Your task to perform on an android device: change keyboard looks Image 0: 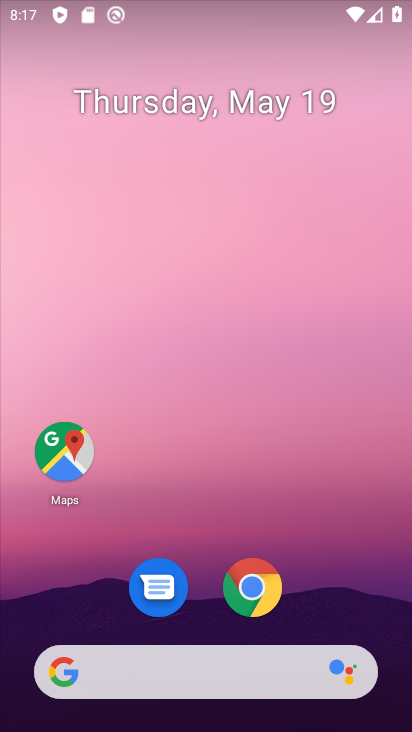
Step 0: drag from (298, 419) to (240, 0)
Your task to perform on an android device: change keyboard looks Image 1: 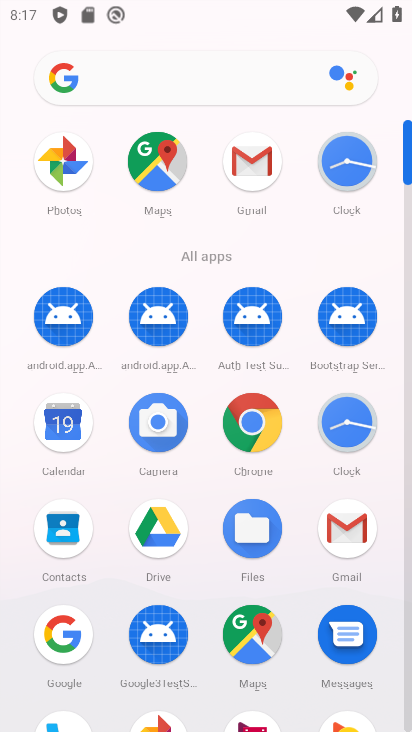
Step 1: drag from (10, 582) to (7, 251)
Your task to perform on an android device: change keyboard looks Image 2: 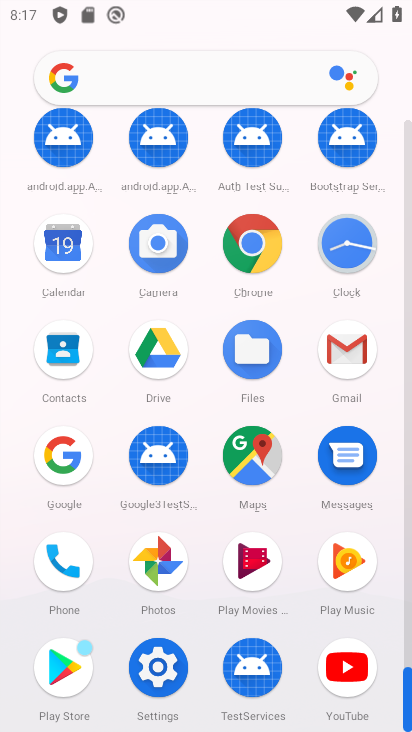
Step 2: click (159, 667)
Your task to perform on an android device: change keyboard looks Image 3: 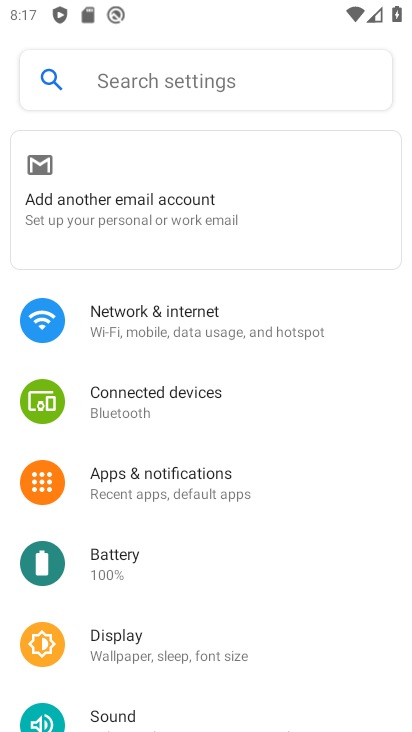
Step 3: drag from (245, 634) to (248, 231)
Your task to perform on an android device: change keyboard looks Image 4: 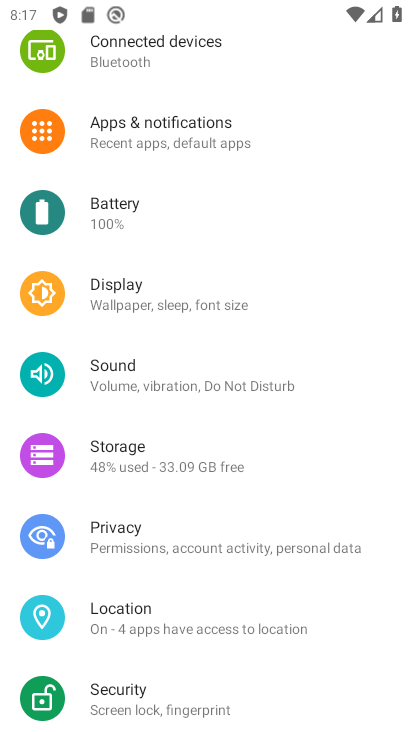
Step 4: drag from (229, 173) to (228, 509)
Your task to perform on an android device: change keyboard looks Image 5: 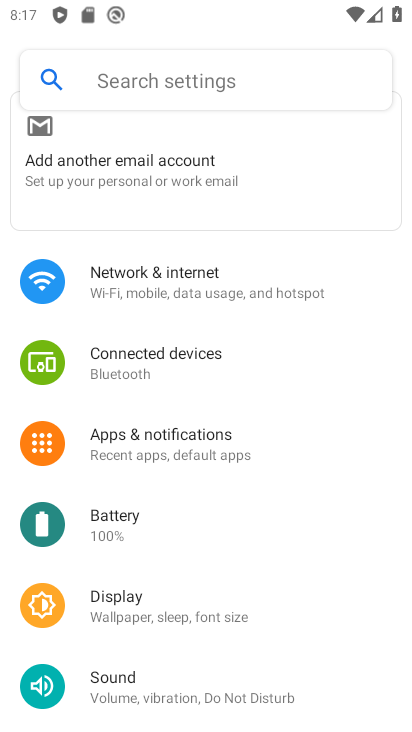
Step 5: drag from (347, 469) to (343, 123)
Your task to perform on an android device: change keyboard looks Image 6: 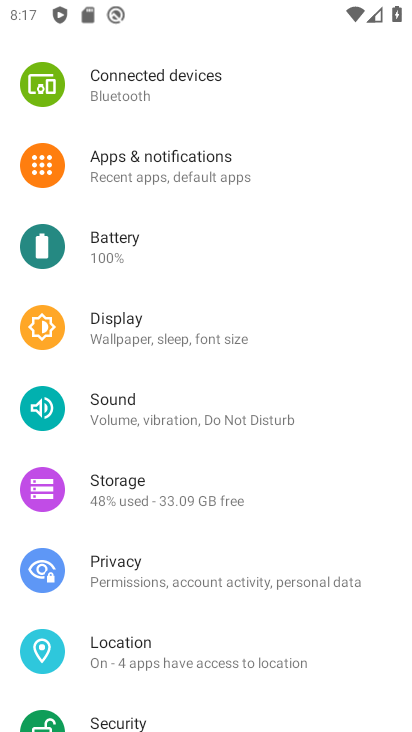
Step 6: drag from (287, 599) to (310, 53)
Your task to perform on an android device: change keyboard looks Image 7: 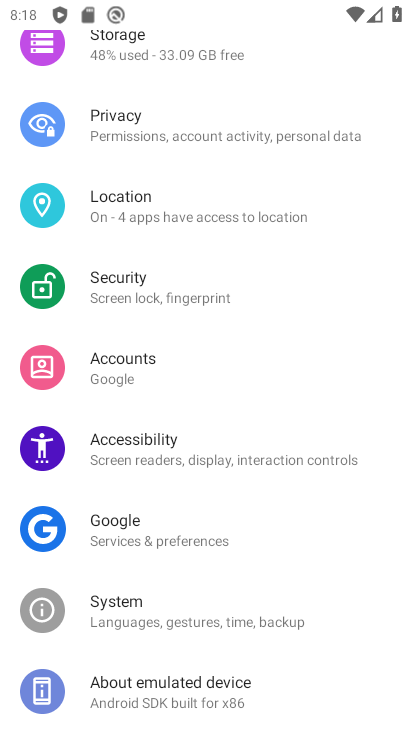
Step 7: click (186, 608)
Your task to perform on an android device: change keyboard looks Image 8: 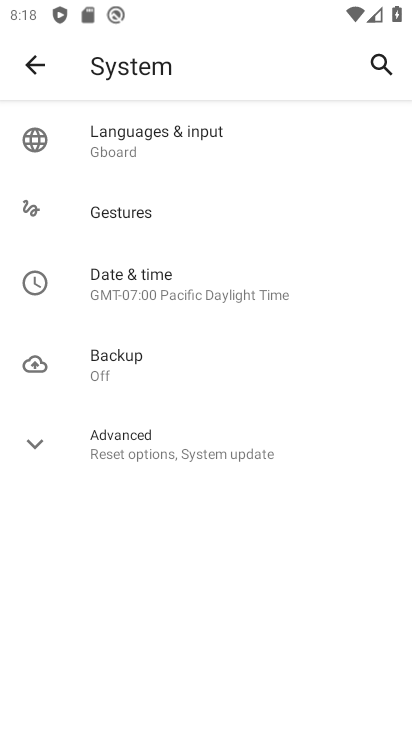
Step 8: click (194, 110)
Your task to perform on an android device: change keyboard looks Image 9: 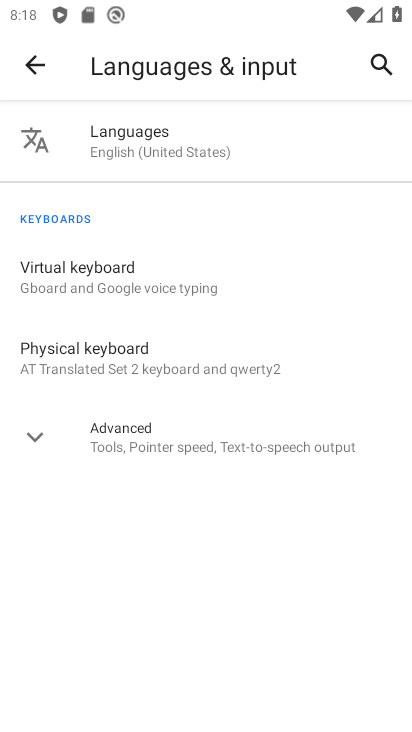
Step 9: click (159, 286)
Your task to perform on an android device: change keyboard looks Image 10: 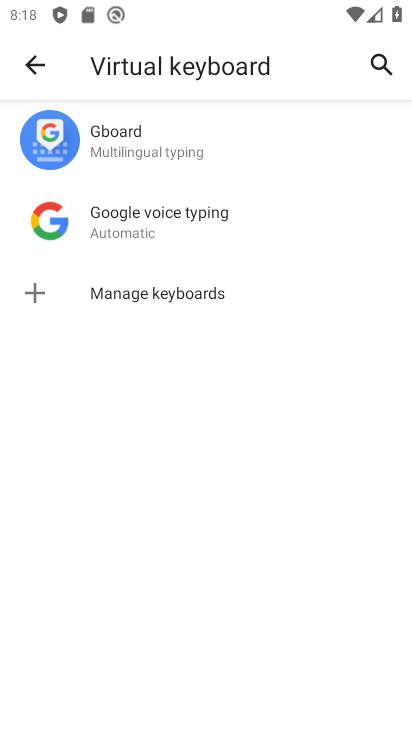
Step 10: click (185, 140)
Your task to perform on an android device: change keyboard looks Image 11: 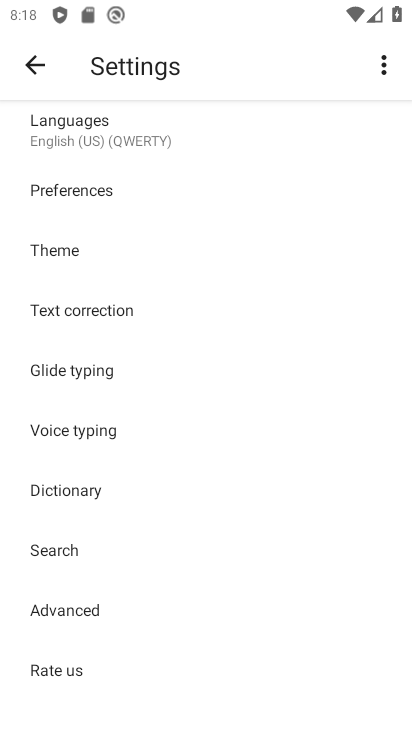
Step 11: click (85, 253)
Your task to perform on an android device: change keyboard looks Image 12: 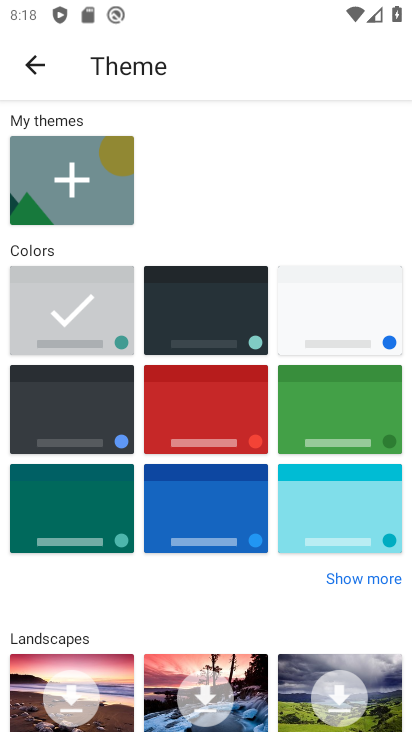
Step 12: click (218, 279)
Your task to perform on an android device: change keyboard looks Image 13: 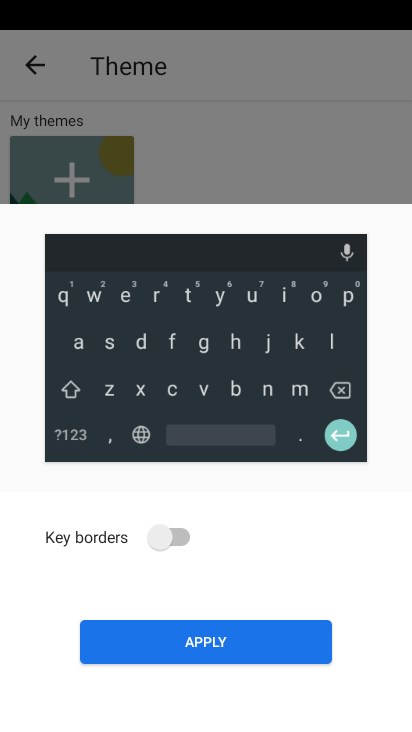
Step 13: click (241, 631)
Your task to perform on an android device: change keyboard looks Image 14: 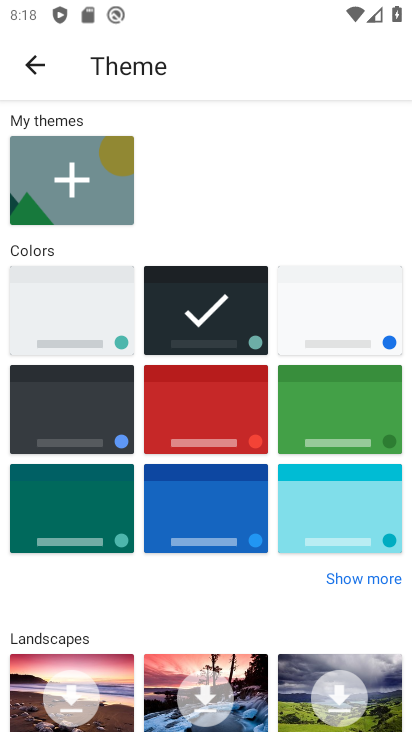
Step 14: task complete